Your task to perform on an android device: change notification settings in the gmail app Image 0: 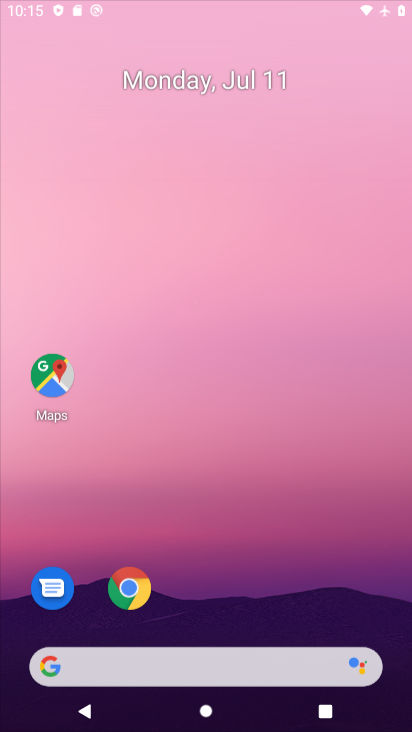
Step 0: click (249, 514)
Your task to perform on an android device: change notification settings in the gmail app Image 1: 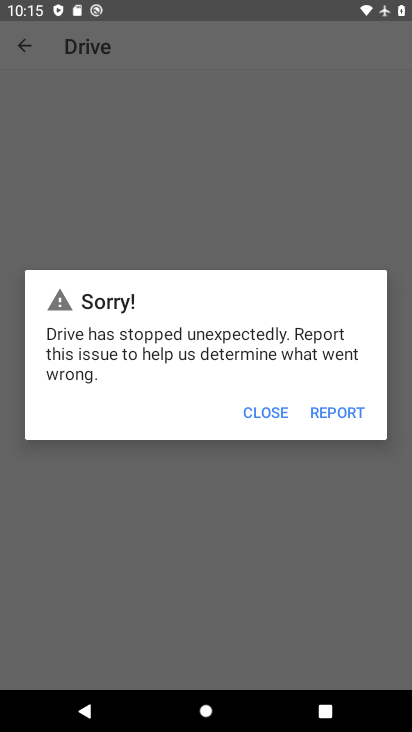
Step 1: press home button
Your task to perform on an android device: change notification settings in the gmail app Image 2: 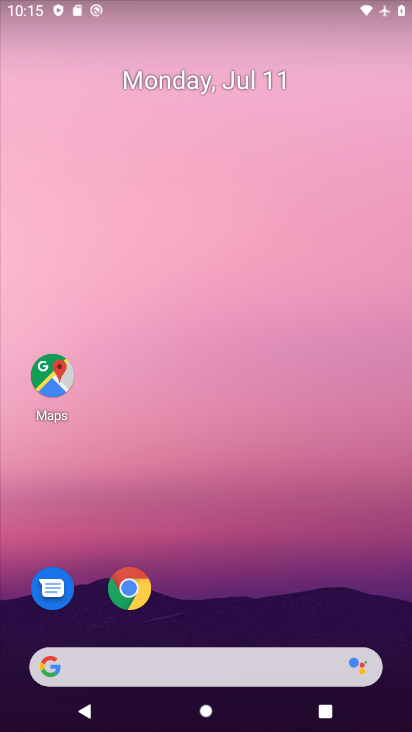
Step 2: drag from (172, 659) to (304, 88)
Your task to perform on an android device: change notification settings in the gmail app Image 3: 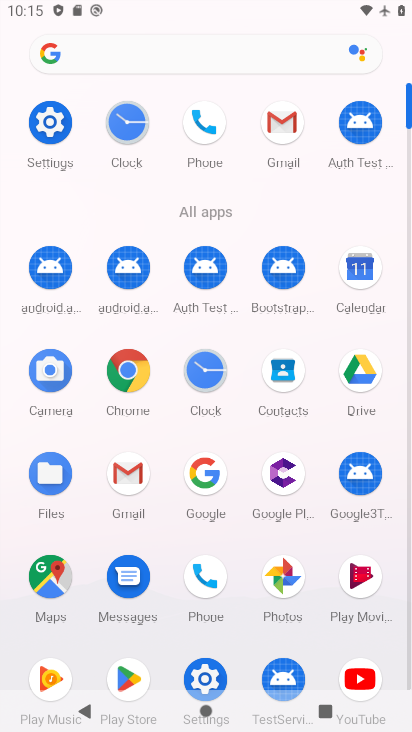
Step 3: click (290, 122)
Your task to perform on an android device: change notification settings in the gmail app Image 4: 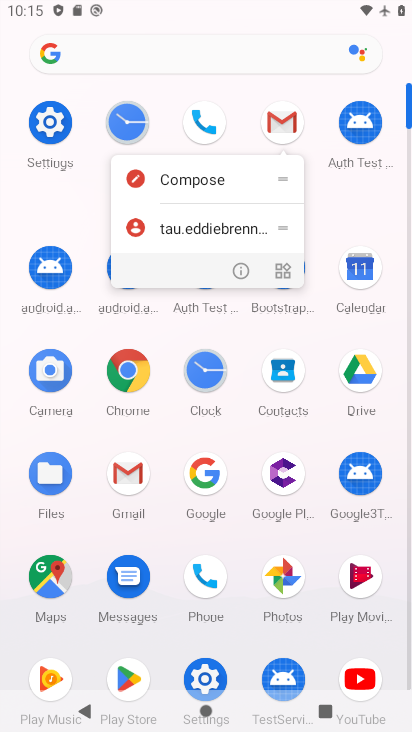
Step 4: click (277, 125)
Your task to perform on an android device: change notification settings in the gmail app Image 5: 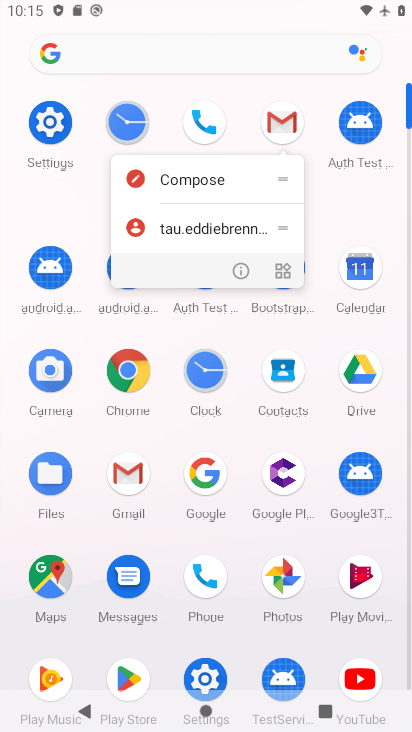
Step 5: click (274, 127)
Your task to perform on an android device: change notification settings in the gmail app Image 6: 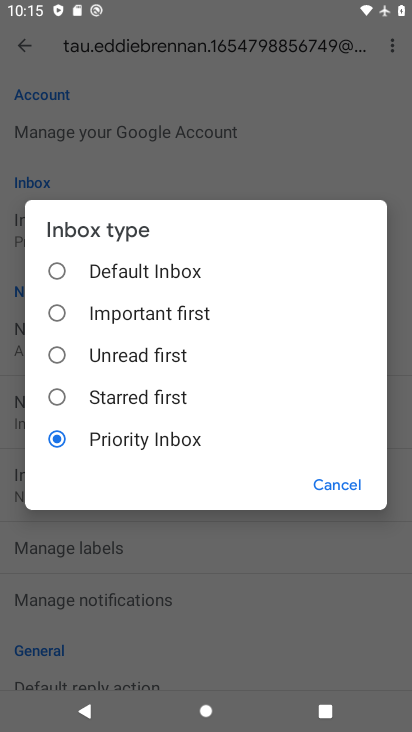
Step 6: click (339, 480)
Your task to perform on an android device: change notification settings in the gmail app Image 7: 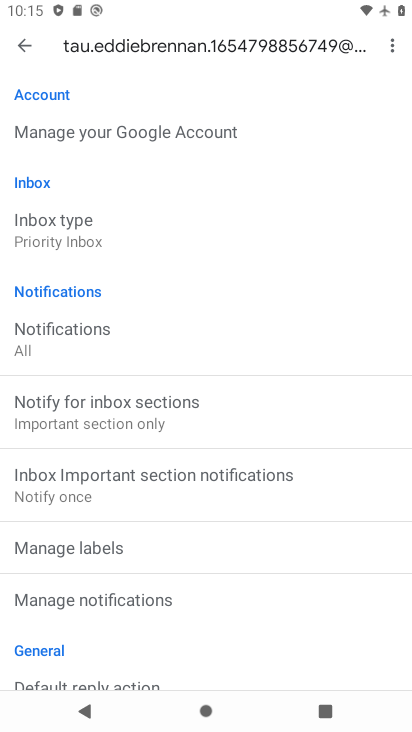
Step 7: click (83, 352)
Your task to perform on an android device: change notification settings in the gmail app Image 8: 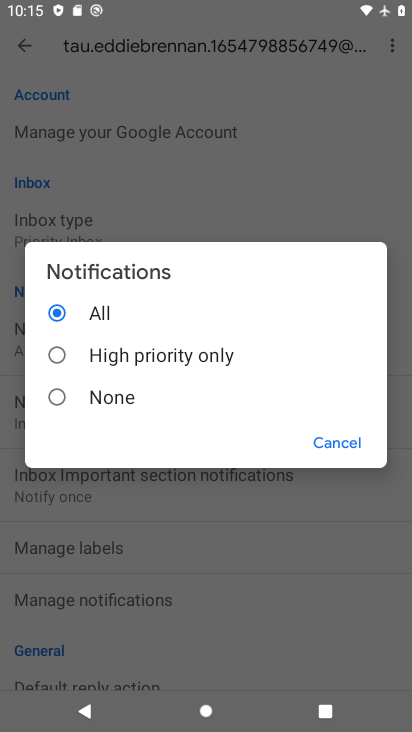
Step 8: click (62, 353)
Your task to perform on an android device: change notification settings in the gmail app Image 9: 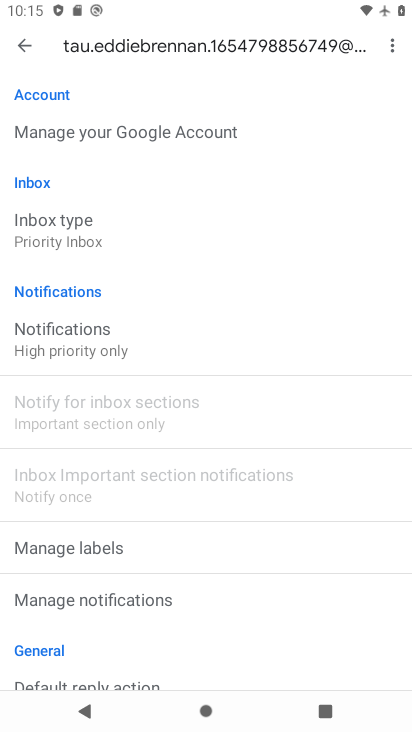
Step 9: task complete